Your task to perform on an android device: toggle improve location accuracy Image 0: 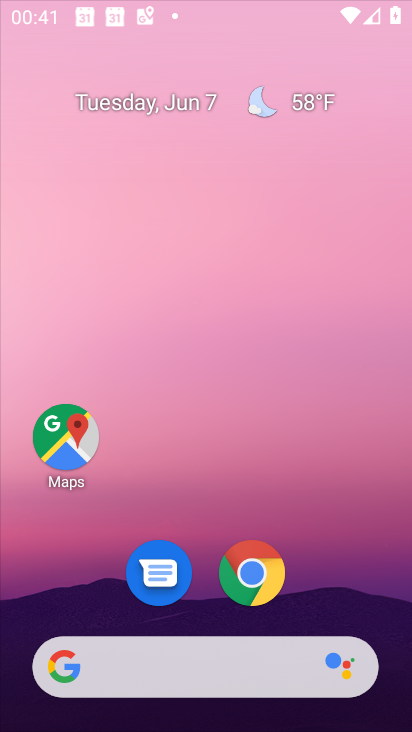
Step 0: press home button
Your task to perform on an android device: toggle improve location accuracy Image 1: 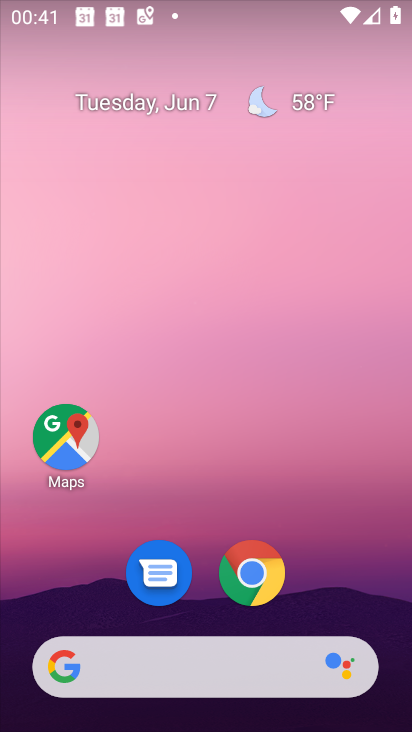
Step 1: drag from (390, 582) to (310, 193)
Your task to perform on an android device: toggle improve location accuracy Image 2: 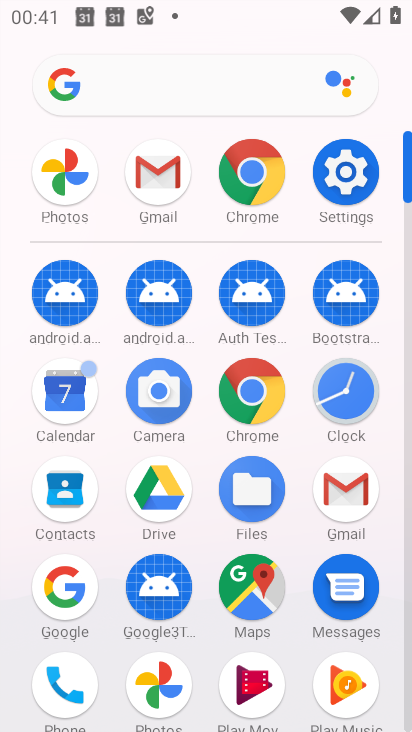
Step 2: click (335, 174)
Your task to perform on an android device: toggle improve location accuracy Image 3: 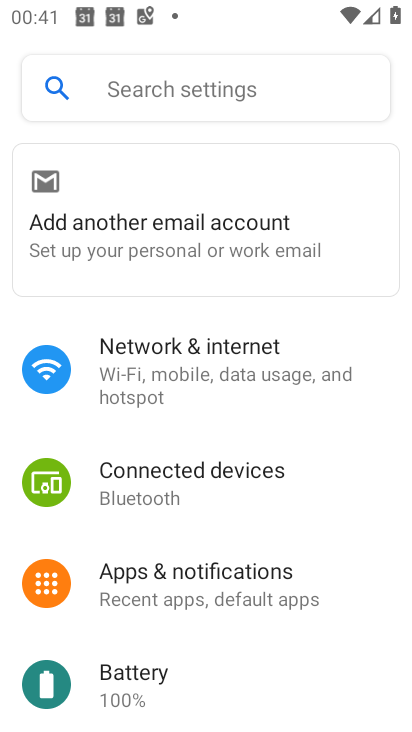
Step 3: drag from (172, 582) to (192, 223)
Your task to perform on an android device: toggle improve location accuracy Image 4: 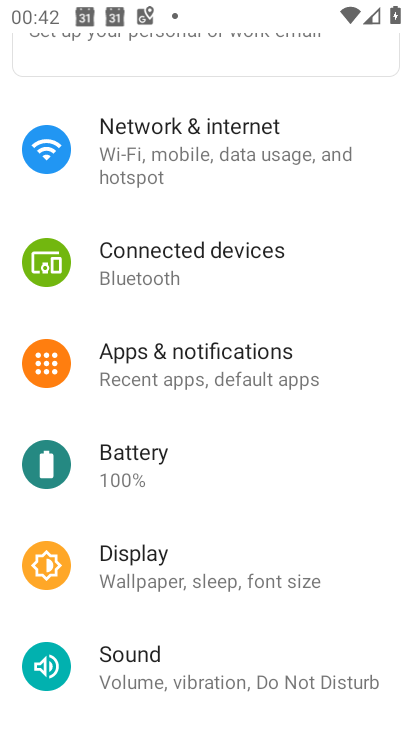
Step 4: drag from (289, 642) to (228, 5)
Your task to perform on an android device: toggle improve location accuracy Image 5: 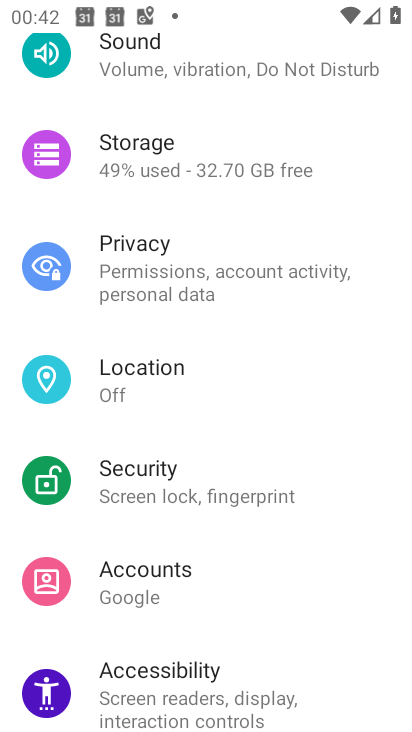
Step 5: click (198, 384)
Your task to perform on an android device: toggle improve location accuracy Image 6: 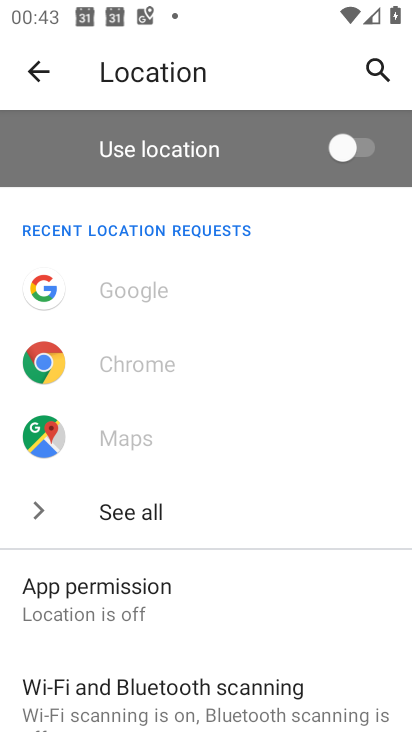
Step 6: drag from (275, 605) to (257, 70)
Your task to perform on an android device: toggle improve location accuracy Image 7: 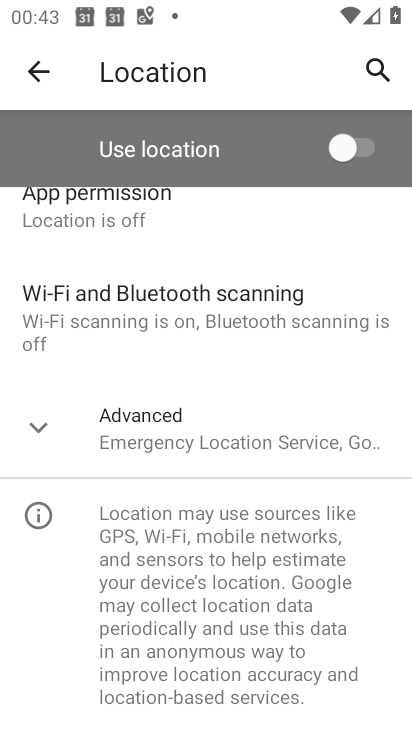
Step 7: click (164, 452)
Your task to perform on an android device: toggle improve location accuracy Image 8: 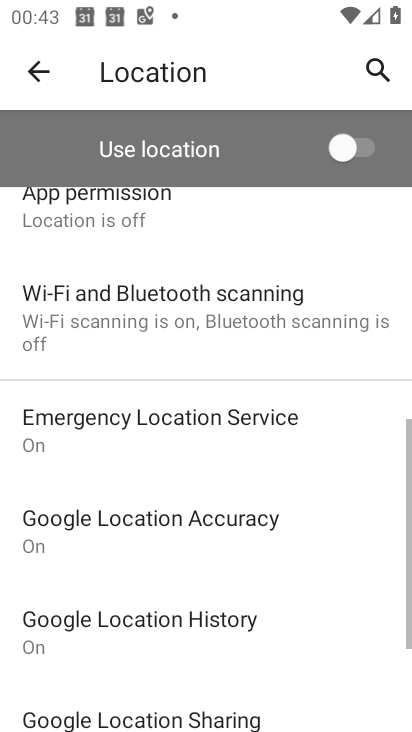
Step 8: click (140, 540)
Your task to perform on an android device: toggle improve location accuracy Image 9: 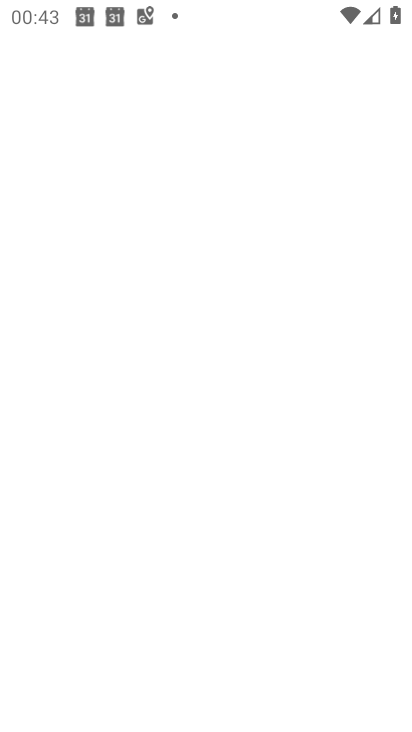
Step 9: click (189, 158)
Your task to perform on an android device: toggle improve location accuracy Image 10: 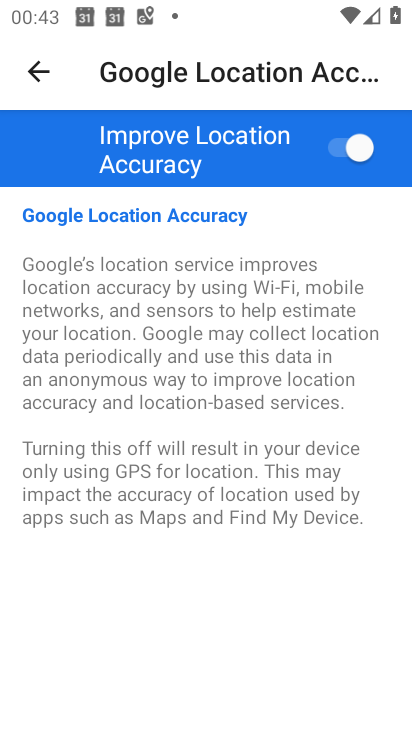
Step 10: click (189, 158)
Your task to perform on an android device: toggle improve location accuracy Image 11: 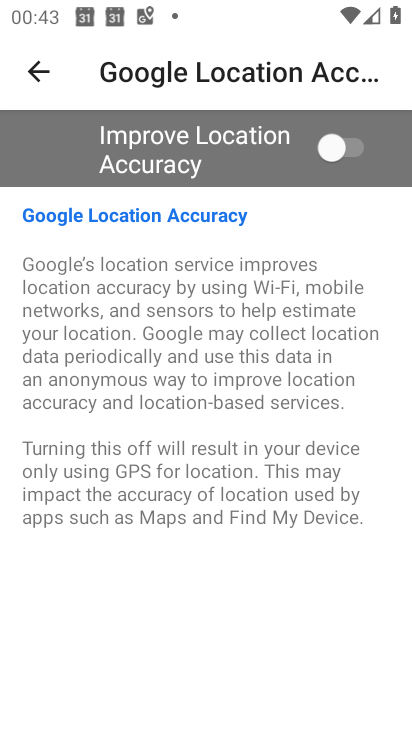
Step 11: task complete